Your task to perform on an android device: add a label to a message in the gmail app Image 0: 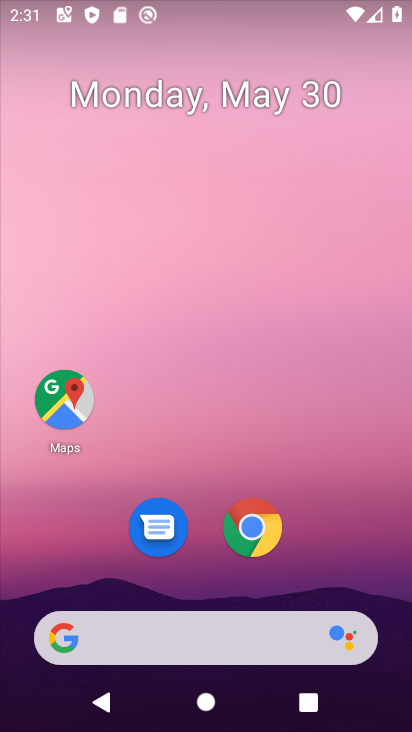
Step 0: drag from (320, 519) to (303, 153)
Your task to perform on an android device: add a label to a message in the gmail app Image 1: 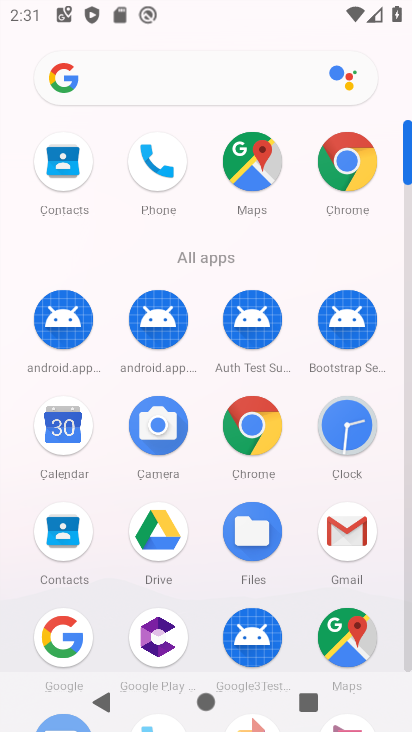
Step 1: click (361, 534)
Your task to perform on an android device: add a label to a message in the gmail app Image 2: 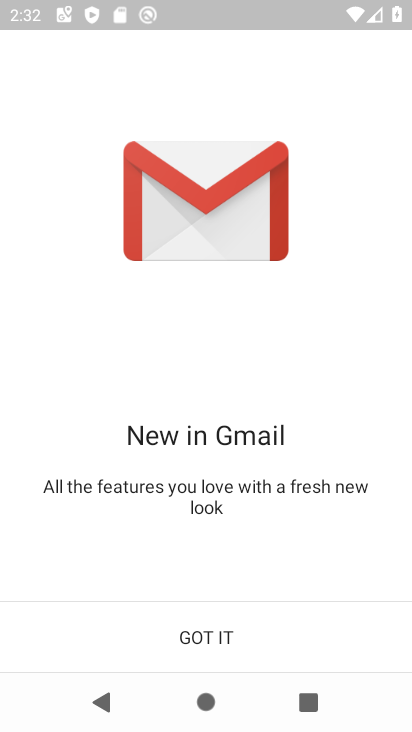
Step 2: click (203, 639)
Your task to perform on an android device: add a label to a message in the gmail app Image 3: 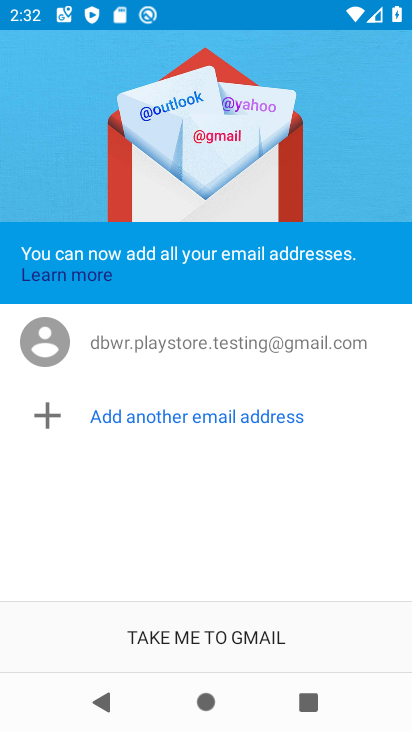
Step 3: click (202, 640)
Your task to perform on an android device: add a label to a message in the gmail app Image 4: 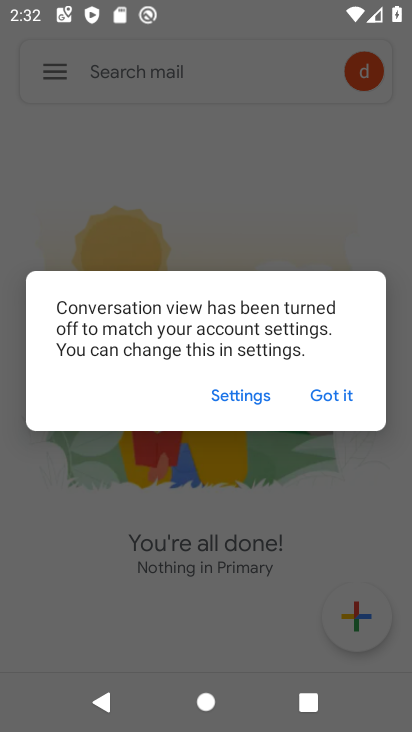
Step 4: click (342, 398)
Your task to perform on an android device: add a label to a message in the gmail app Image 5: 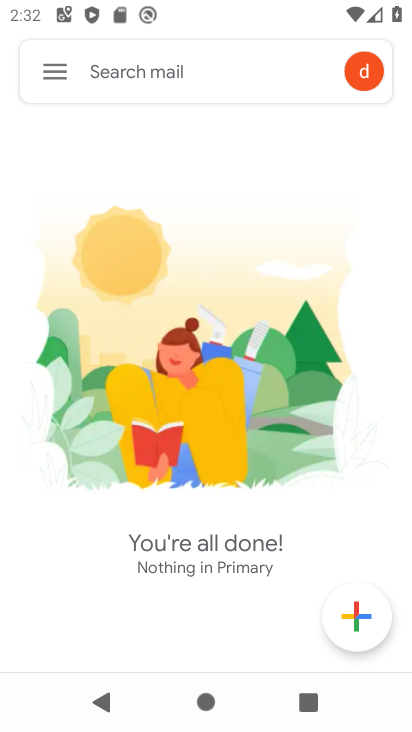
Step 5: task complete